Your task to perform on an android device: Open settings Image 0: 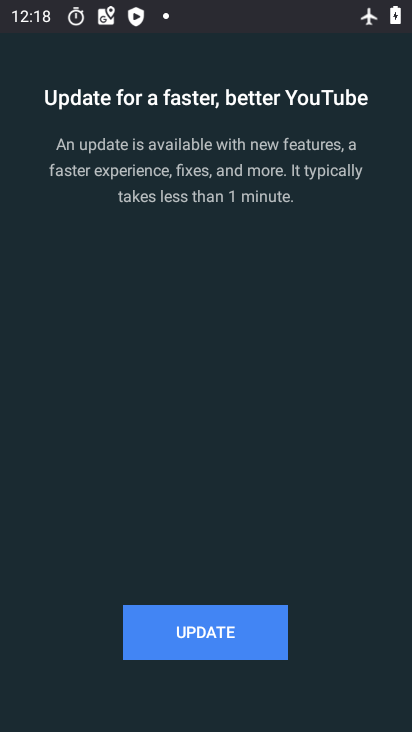
Step 0: press home button
Your task to perform on an android device: Open settings Image 1: 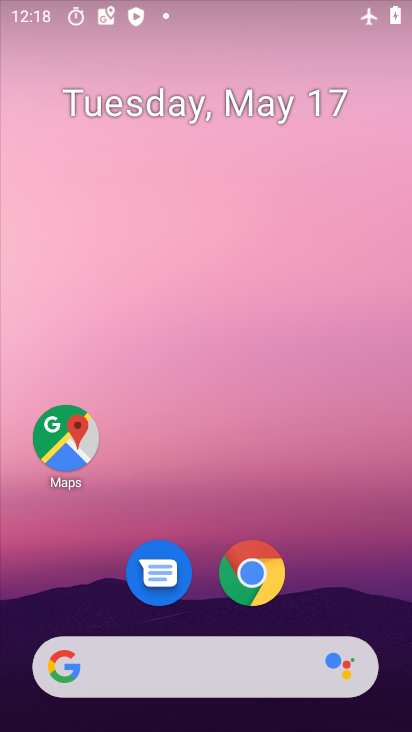
Step 1: drag from (243, 718) to (299, 63)
Your task to perform on an android device: Open settings Image 2: 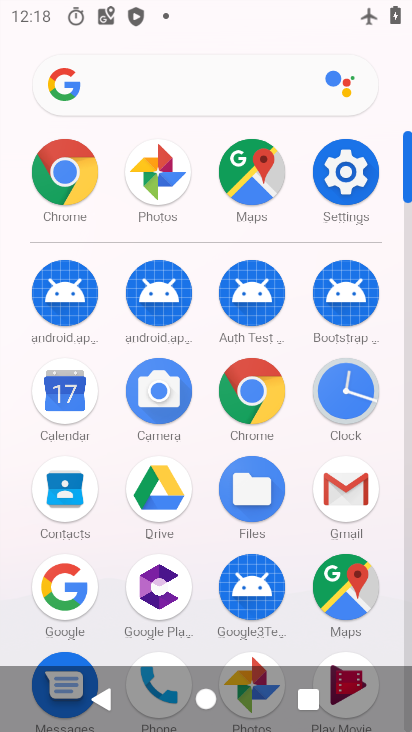
Step 2: click (326, 175)
Your task to perform on an android device: Open settings Image 3: 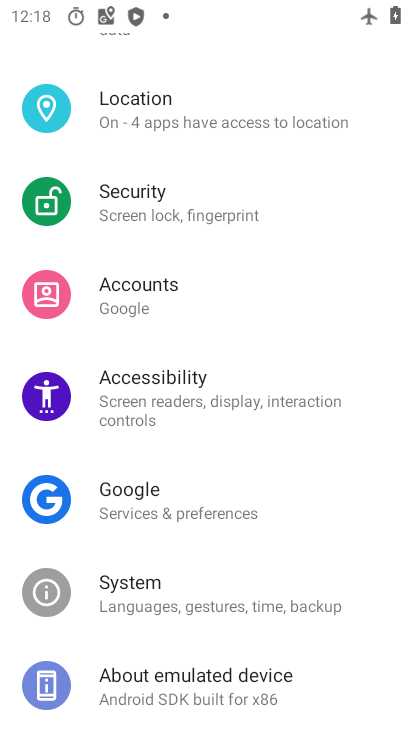
Step 3: task complete